Your task to perform on an android device: Go to Reddit.com Image 0: 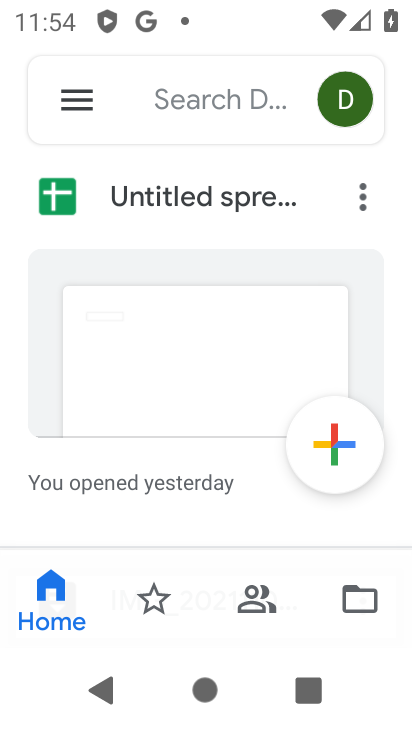
Step 0: press home button
Your task to perform on an android device: Go to Reddit.com Image 1: 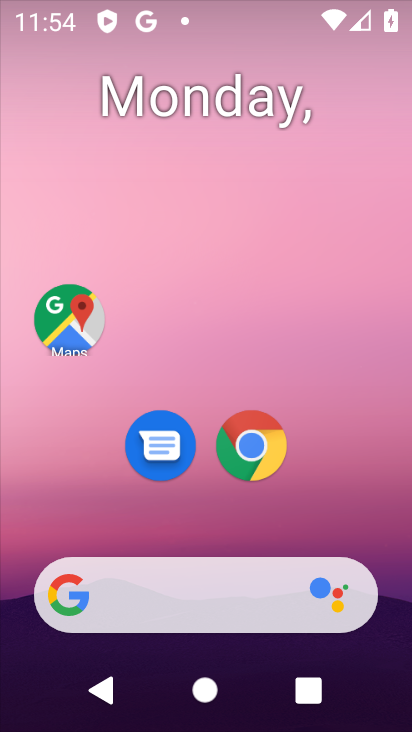
Step 1: click (175, 602)
Your task to perform on an android device: Go to Reddit.com Image 2: 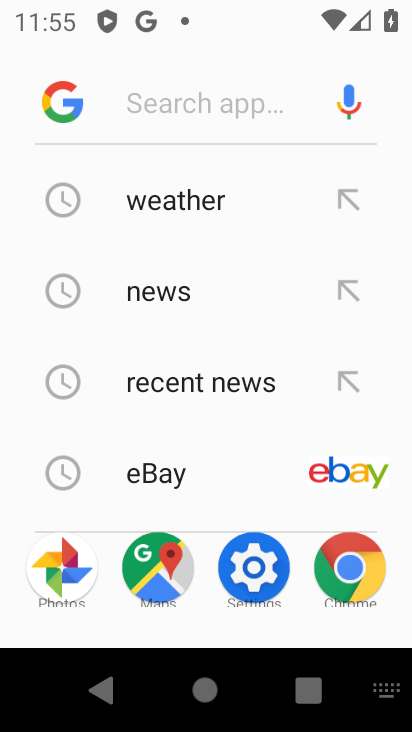
Step 2: type "Reddit.com"
Your task to perform on an android device: Go to Reddit.com Image 3: 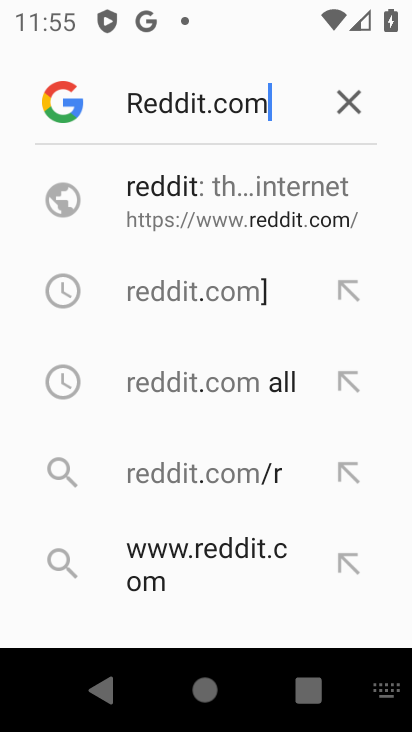
Step 3: click (205, 229)
Your task to perform on an android device: Go to Reddit.com Image 4: 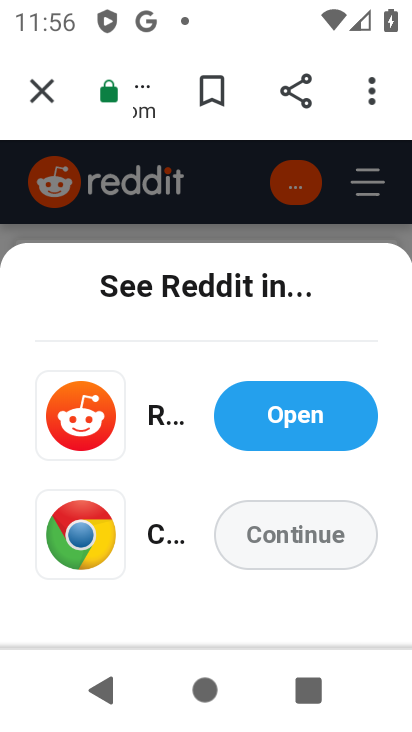
Step 4: click (342, 548)
Your task to perform on an android device: Go to Reddit.com Image 5: 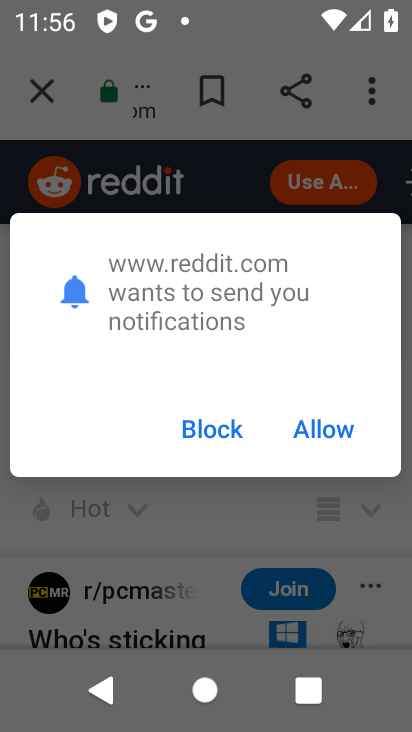
Step 5: click (363, 431)
Your task to perform on an android device: Go to Reddit.com Image 6: 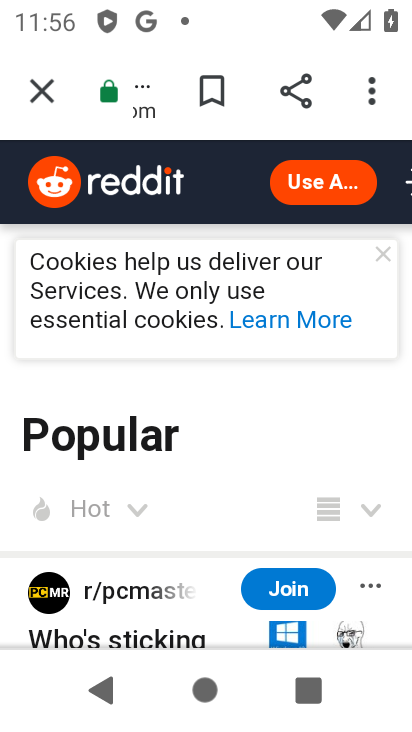
Step 6: task complete